Your task to perform on an android device: When is my next meeting? Image 0: 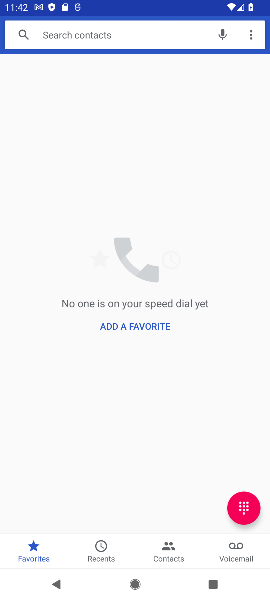
Step 0: click (77, 31)
Your task to perform on an android device: When is my next meeting? Image 1: 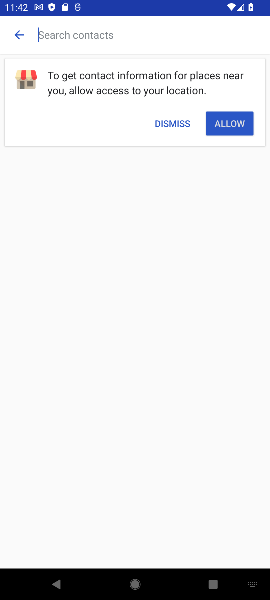
Step 1: press home button
Your task to perform on an android device: When is my next meeting? Image 2: 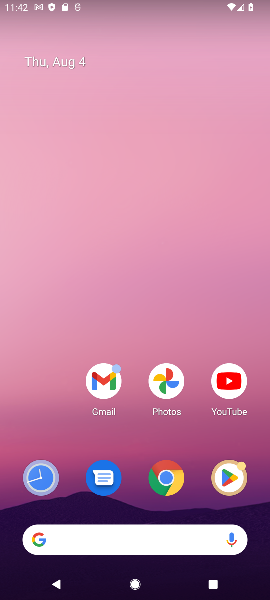
Step 2: drag from (128, 442) to (139, 139)
Your task to perform on an android device: When is my next meeting? Image 3: 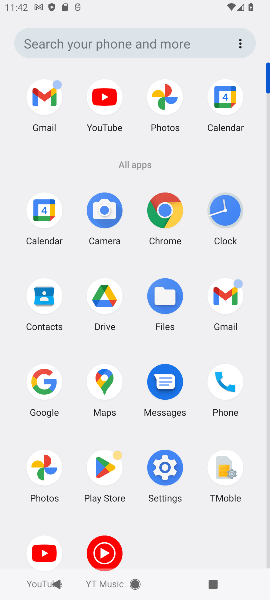
Step 3: click (38, 212)
Your task to perform on an android device: When is my next meeting? Image 4: 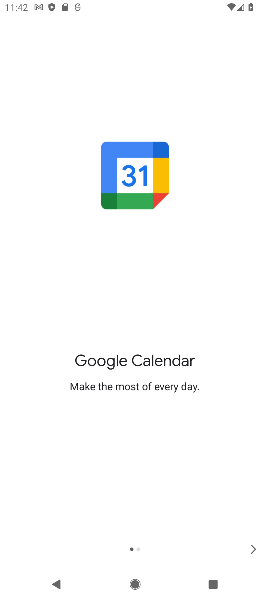
Step 4: click (253, 540)
Your task to perform on an android device: When is my next meeting? Image 5: 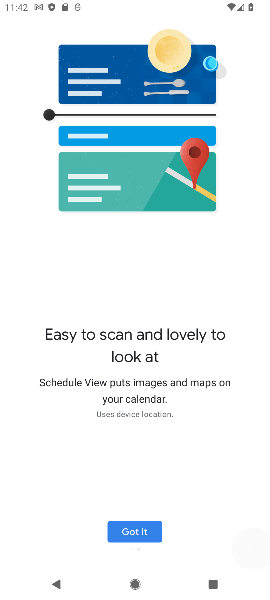
Step 5: click (253, 540)
Your task to perform on an android device: When is my next meeting? Image 6: 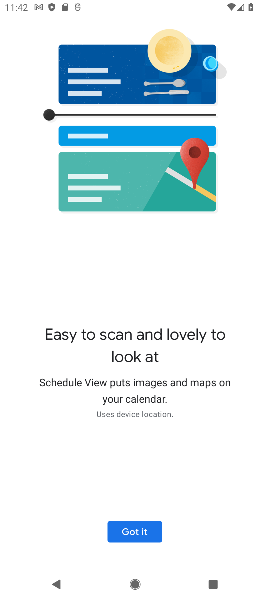
Step 6: click (143, 522)
Your task to perform on an android device: When is my next meeting? Image 7: 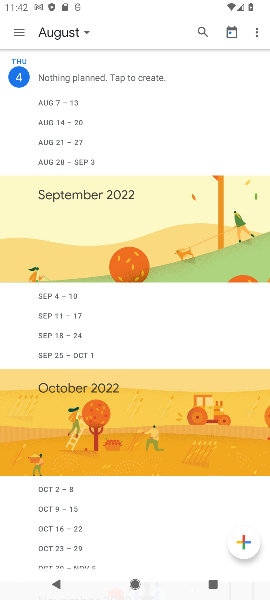
Step 7: click (81, 33)
Your task to perform on an android device: When is my next meeting? Image 8: 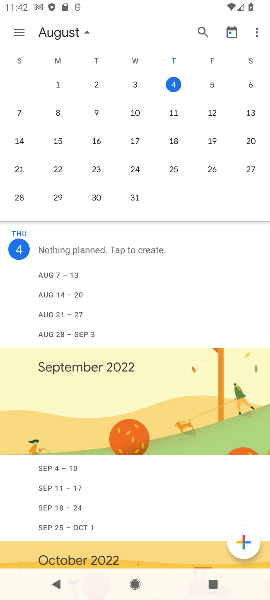
Step 8: drag from (247, 118) to (2, 108)
Your task to perform on an android device: When is my next meeting? Image 9: 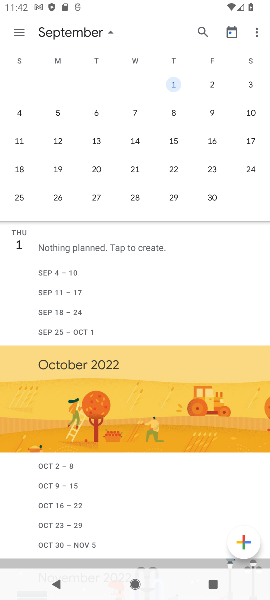
Step 9: drag from (29, 106) to (248, 118)
Your task to perform on an android device: When is my next meeting? Image 10: 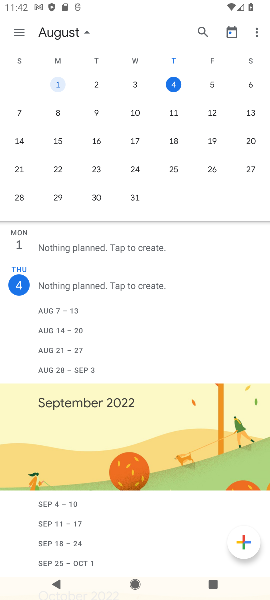
Step 10: click (167, 79)
Your task to perform on an android device: When is my next meeting? Image 11: 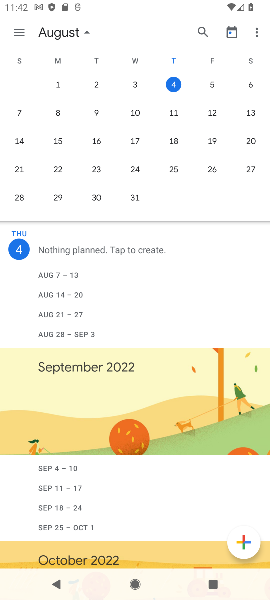
Step 11: task complete